Your task to perform on an android device: turn on priority inbox in the gmail app Image 0: 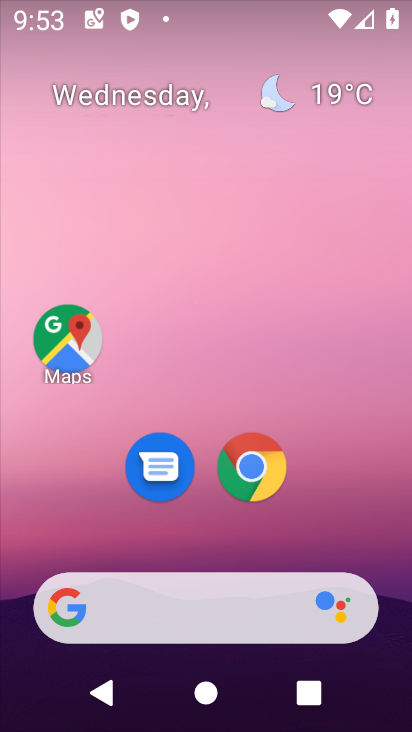
Step 0: drag from (302, 405) to (182, 29)
Your task to perform on an android device: turn on priority inbox in the gmail app Image 1: 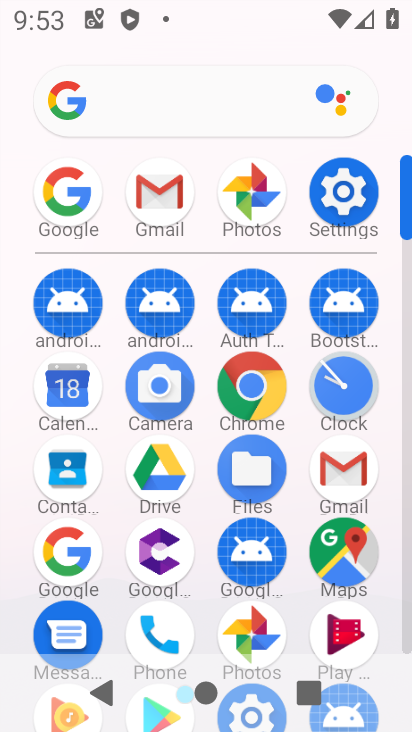
Step 1: click (345, 459)
Your task to perform on an android device: turn on priority inbox in the gmail app Image 2: 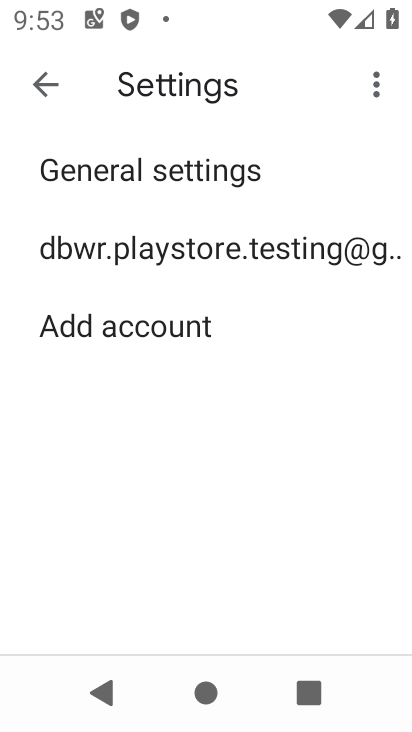
Step 2: click (200, 257)
Your task to perform on an android device: turn on priority inbox in the gmail app Image 3: 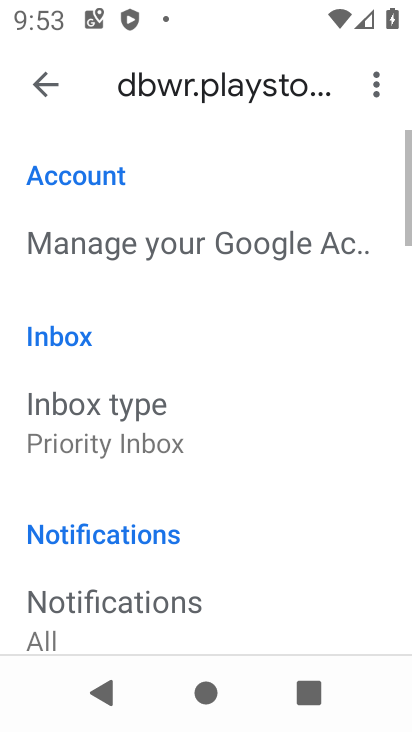
Step 3: click (158, 428)
Your task to perform on an android device: turn on priority inbox in the gmail app Image 4: 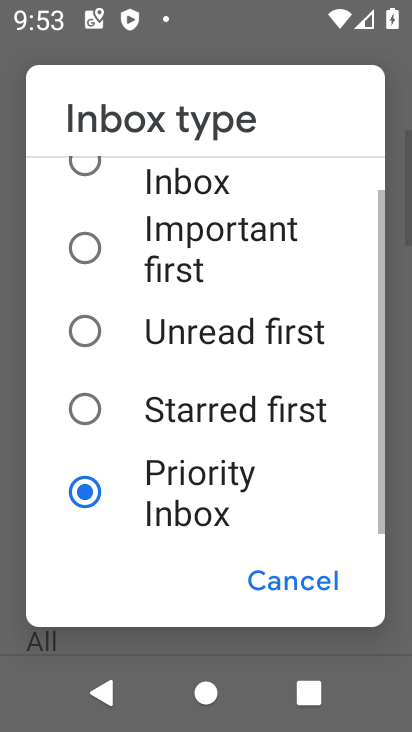
Step 4: task complete